Your task to perform on an android device: change the clock style Image 0: 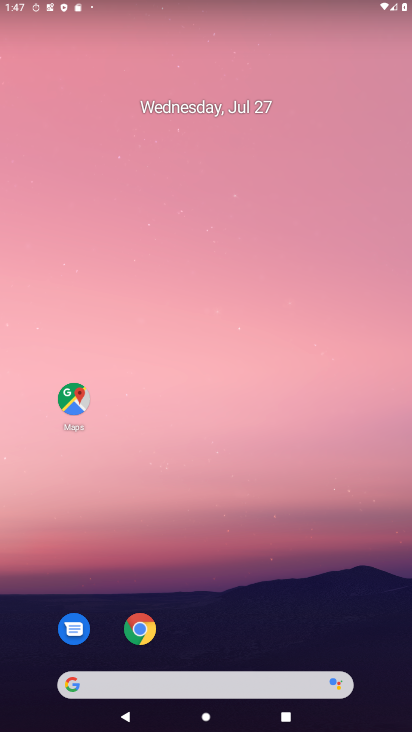
Step 0: drag from (380, 616) to (12, 45)
Your task to perform on an android device: change the clock style Image 1: 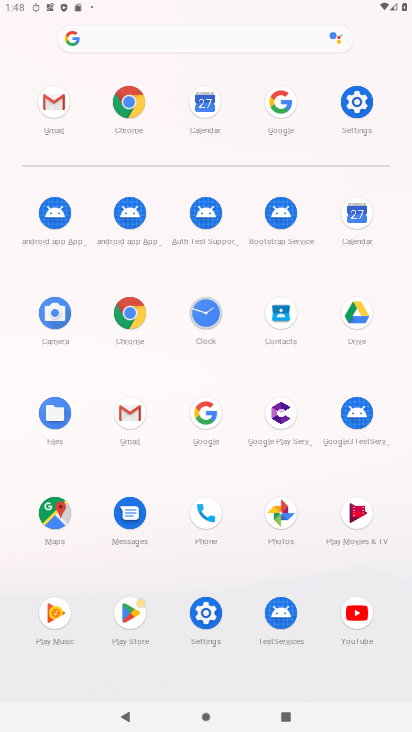
Step 1: click (200, 304)
Your task to perform on an android device: change the clock style Image 2: 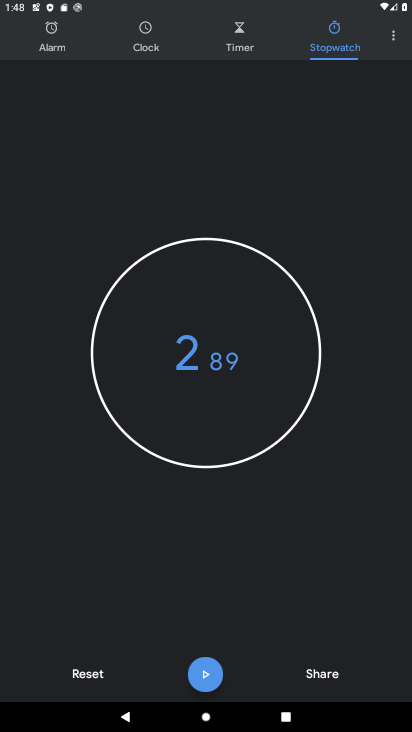
Step 2: click (395, 40)
Your task to perform on an android device: change the clock style Image 3: 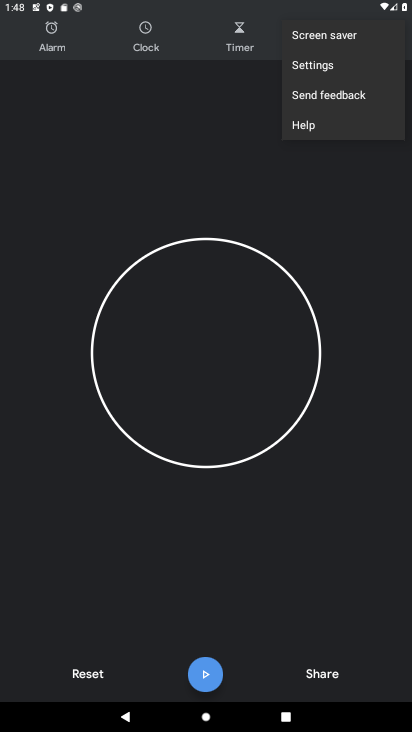
Step 3: click (323, 66)
Your task to perform on an android device: change the clock style Image 4: 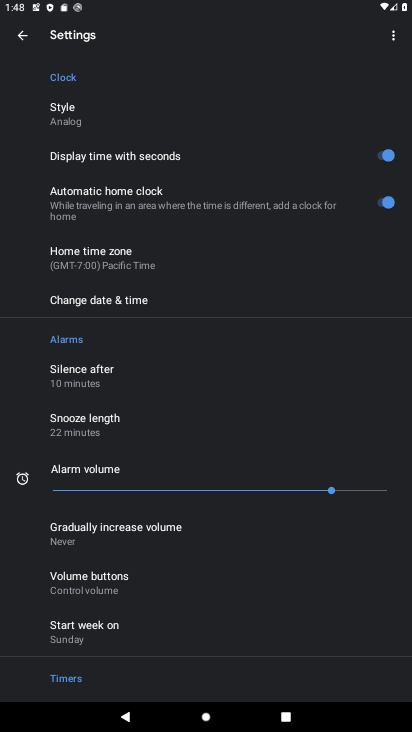
Step 4: click (89, 116)
Your task to perform on an android device: change the clock style Image 5: 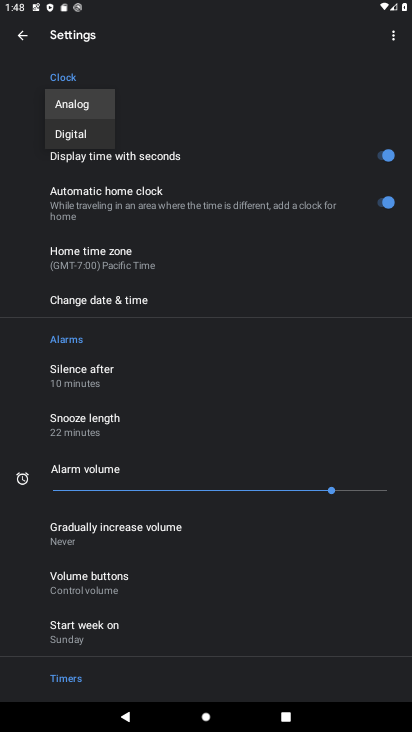
Step 5: click (47, 149)
Your task to perform on an android device: change the clock style Image 6: 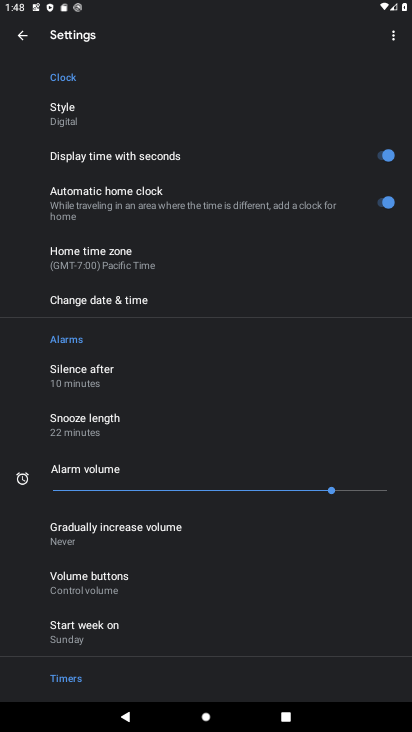
Step 6: click (77, 122)
Your task to perform on an android device: change the clock style Image 7: 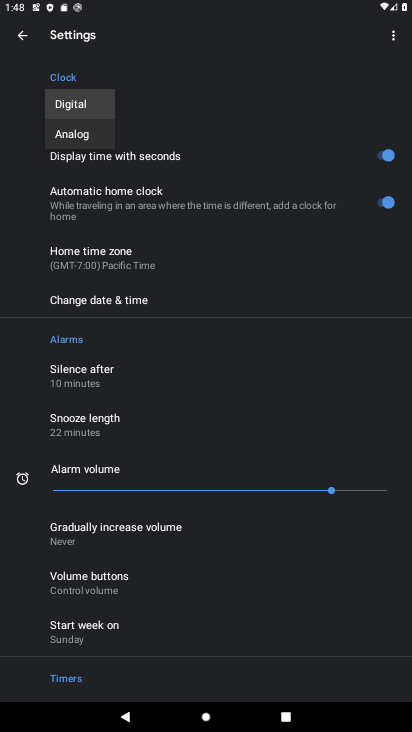
Step 7: click (77, 127)
Your task to perform on an android device: change the clock style Image 8: 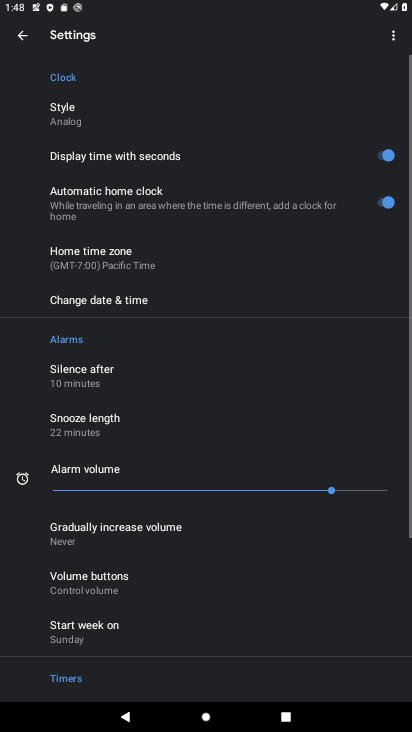
Step 8: task complete